Your task to perform on an android device: turn off translation in the chrome app Image 0: 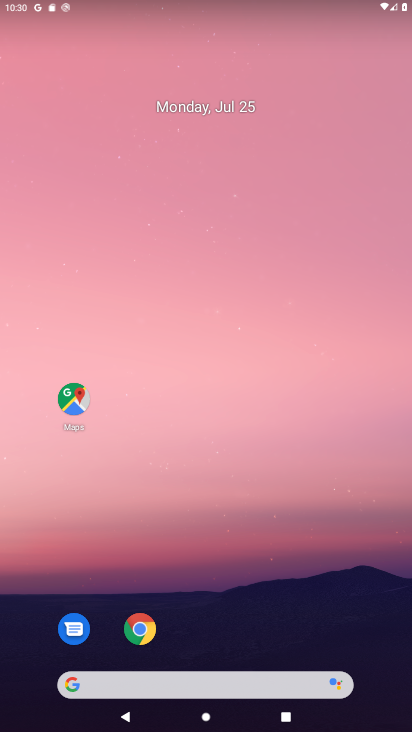
Step 0: drag from (213, 659) to (207, 130)
Your task to perform on an android device: turn off translation in the chrome app Image 1: 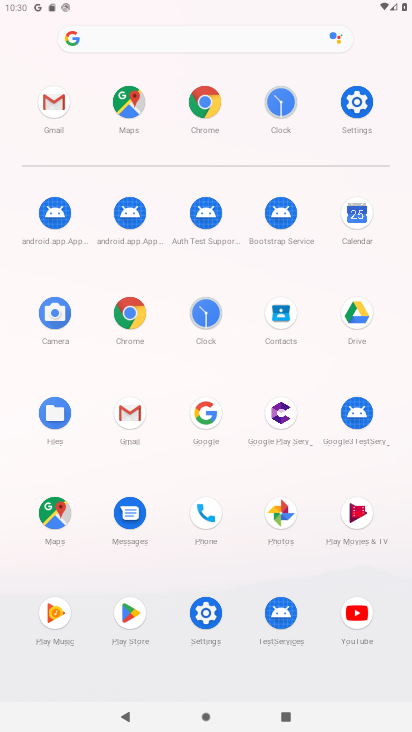
Step 1: click (207, 105)
Your task to perform on an android device: turn off translation in the chrome app Image 2: 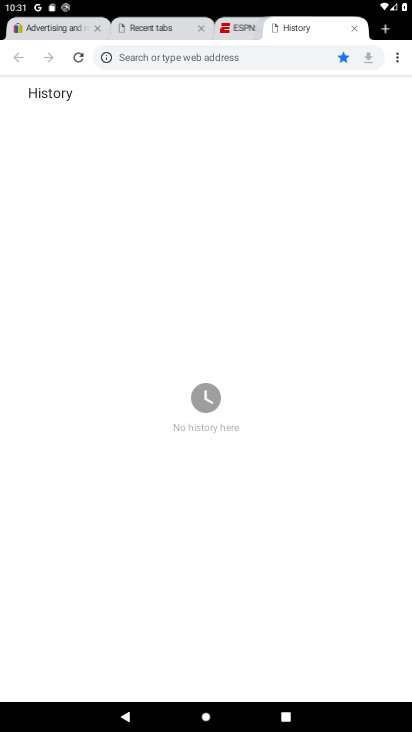
Step 2: click (403, 56)
Your task to perform on an android device: turn off translation in the chrome app Image 3: 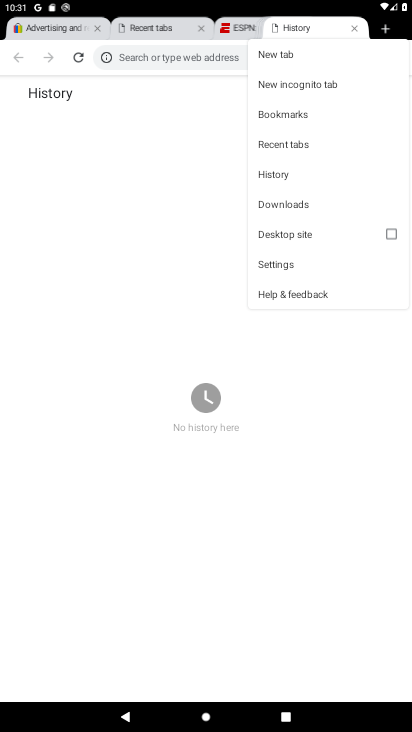
Step 3: click (298, 271)
Your task to perform on an android device: turn off translation in the chrome app Image 4: 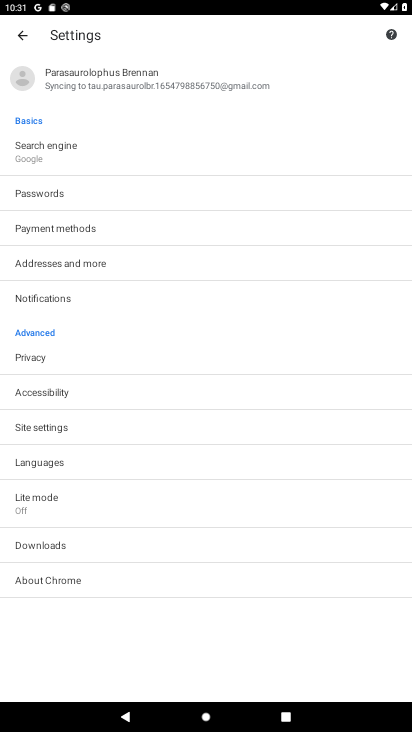
Step 4: click (72, 474)
Your task to perform on an android device: turn off translation in the chrome app Image 5: 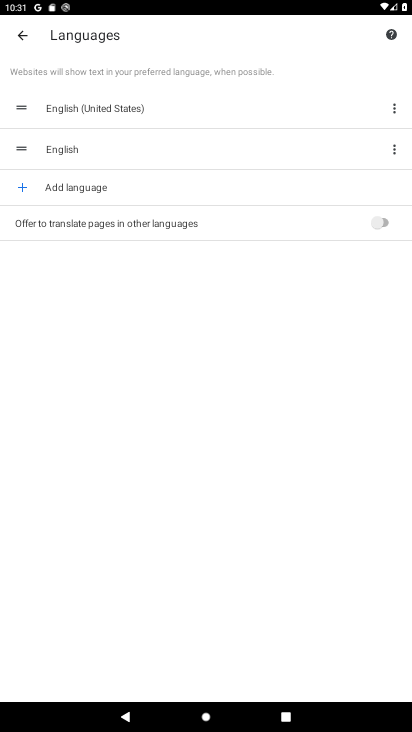
Step 5: task complete